Your task to perform on an android device: What does the iPhone 8 look like? Image 0: 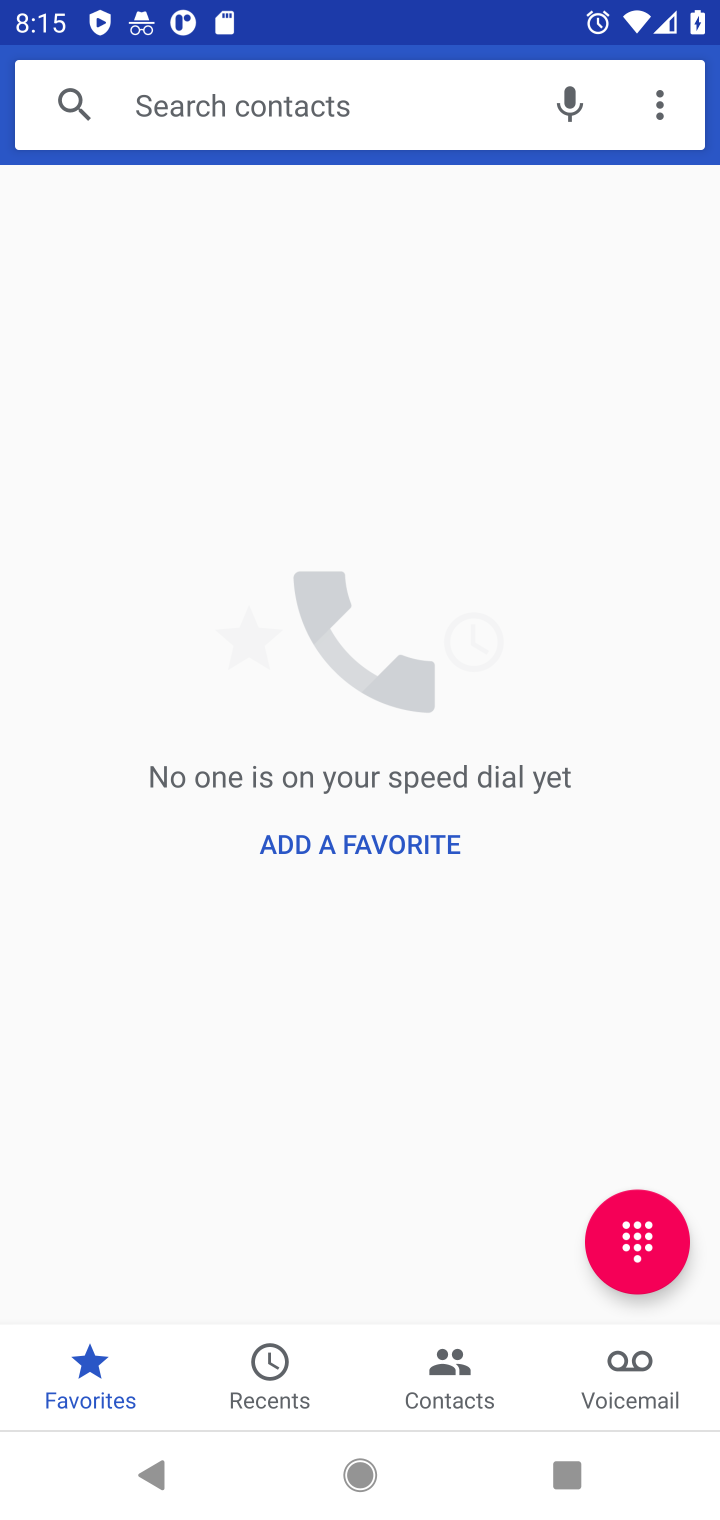
Step 0: press home button
Your task to perform on an android device: What does the iPhone 8 look like? Image 1: 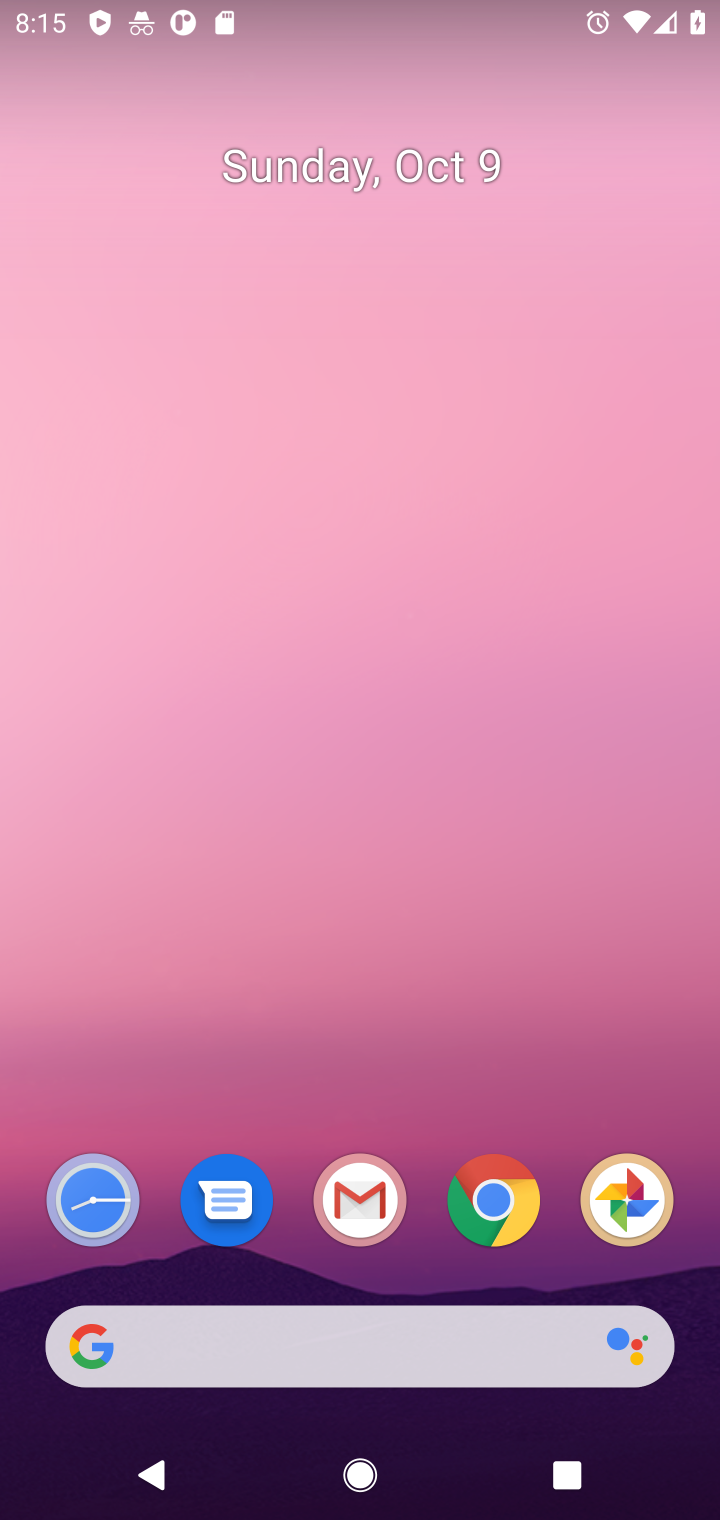
Step 1: click (499, 1199)
Your task to perform on an android device: What does the iPhone 8 look like? Image 2: 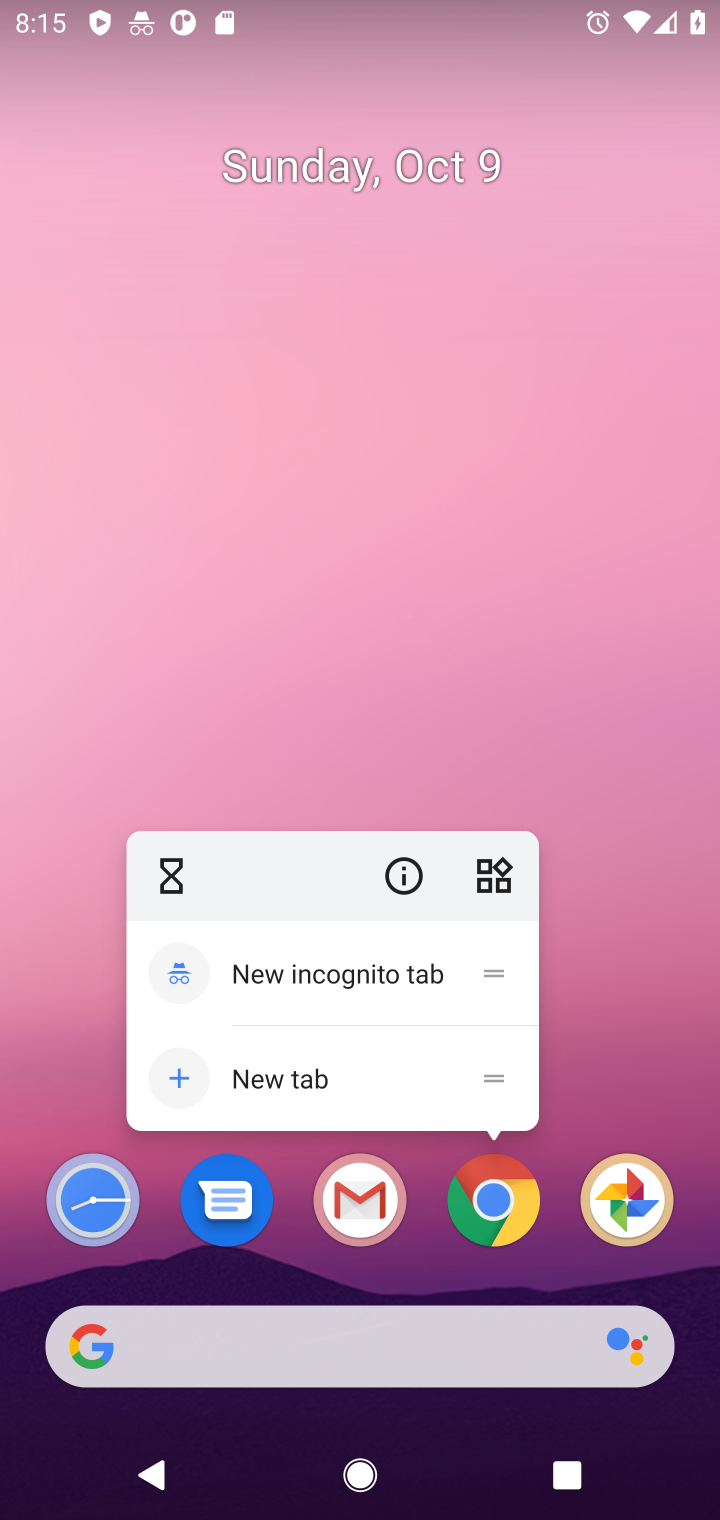
Step 2: click (488, 1213)
Your task to perform on an android device: What does the iPhone 8 look like? Image 3: 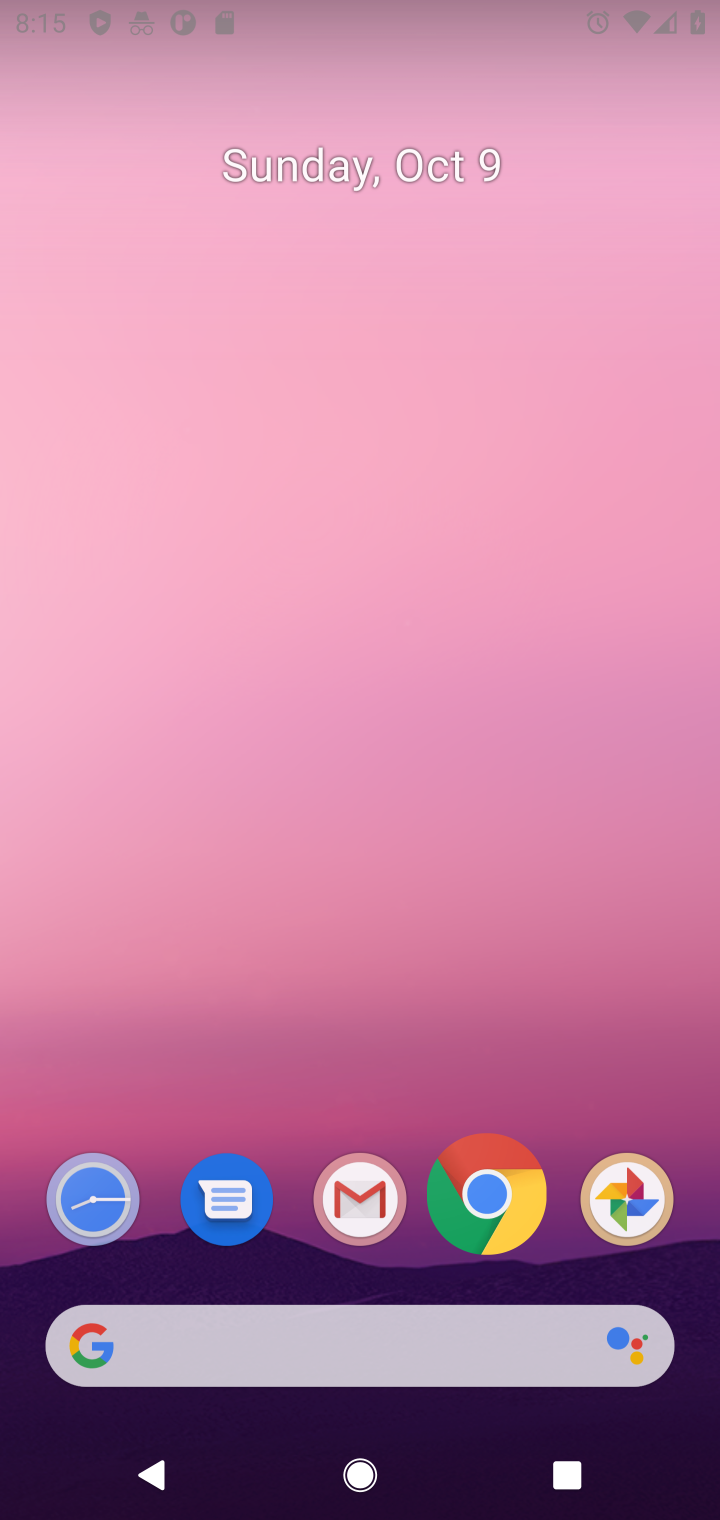
Step 3: click (501, 1208)
Your task to perform on an android device: What does the iPhone 8 look like? Image 4: 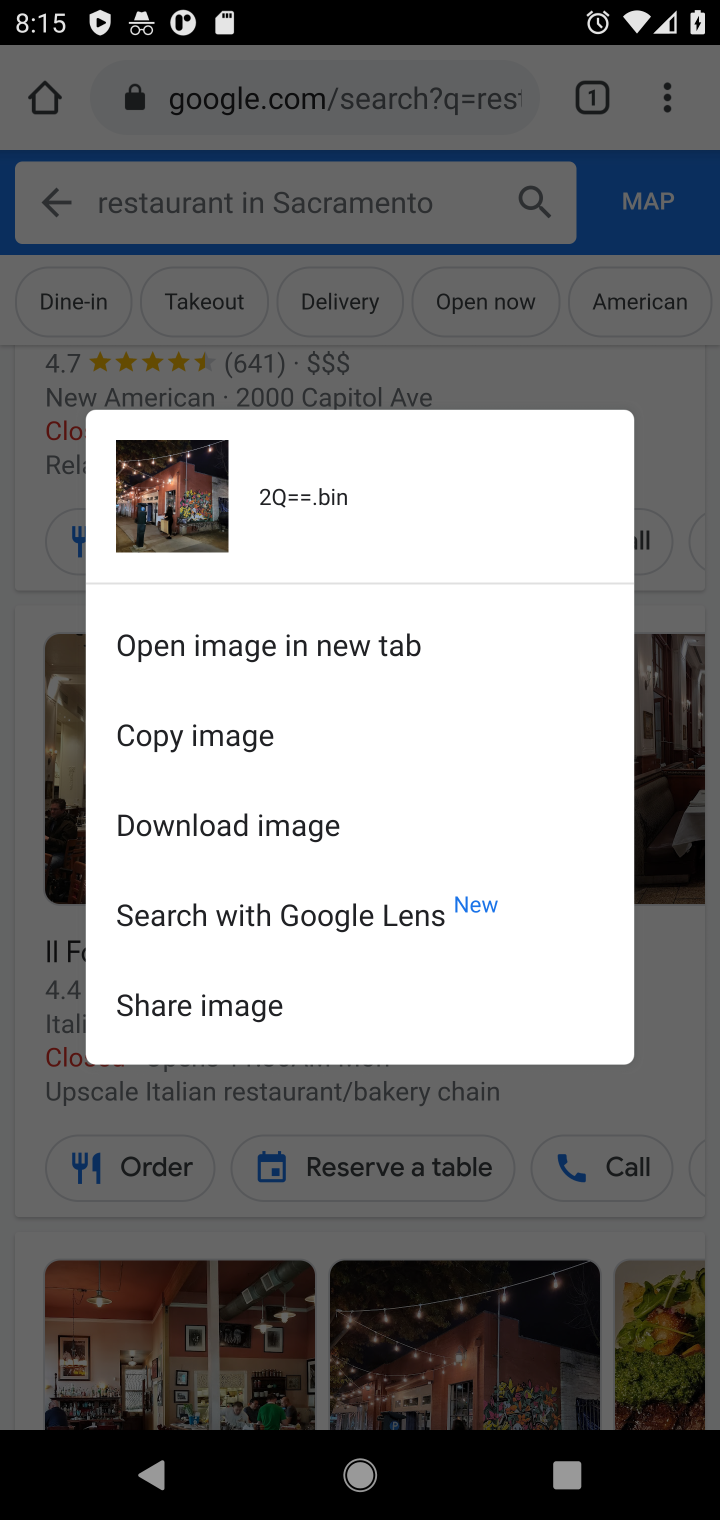
Step 4: click (434, 162)
Your task to perform on an android device: What does the iPhone 8 look like? Image 5: 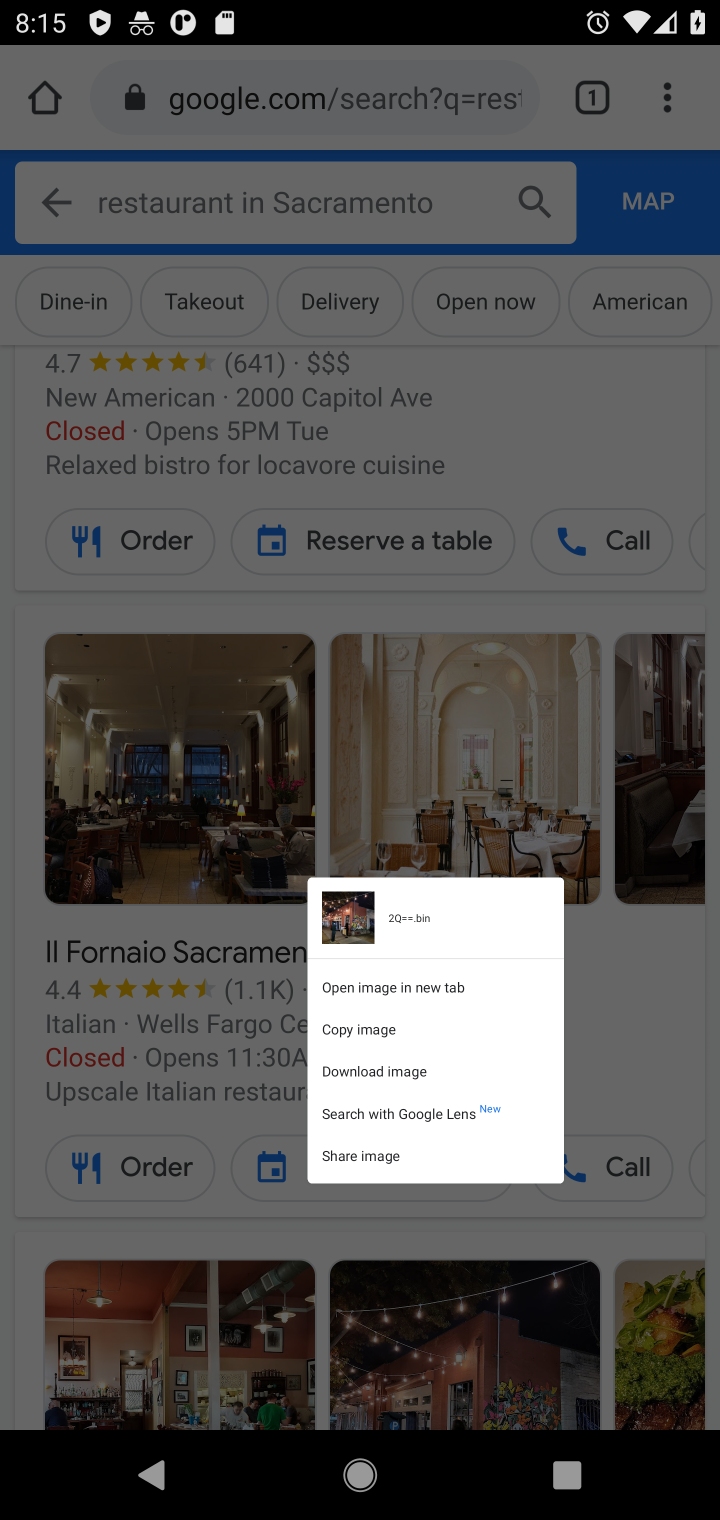
Step 5: click (387, 109)
Your task to perform on an android device: What does the iPhone 8 look like? Image 6: 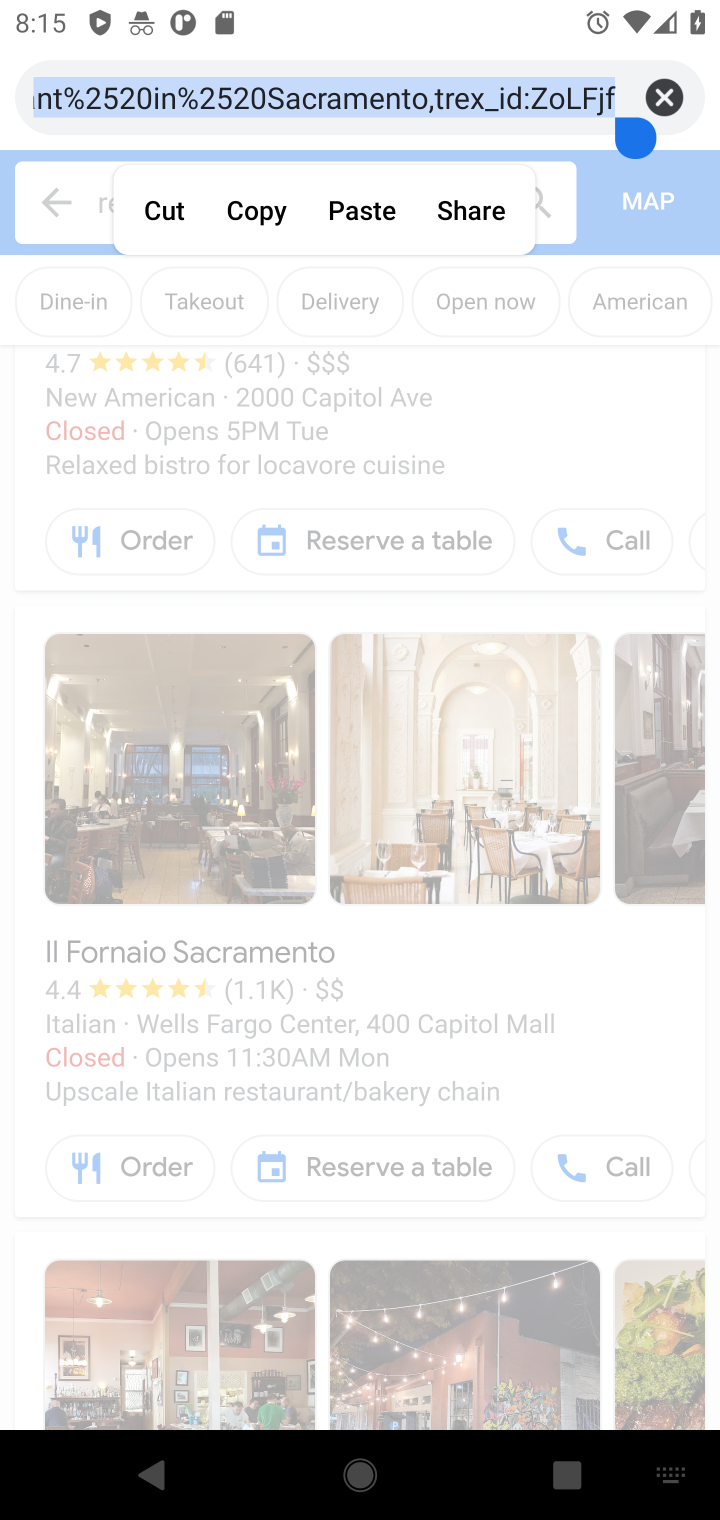
Step 6: type "What does the iPhone 8 look like"
Your task to perform on an android device: What does the iPhone 8 look like? Image 7: 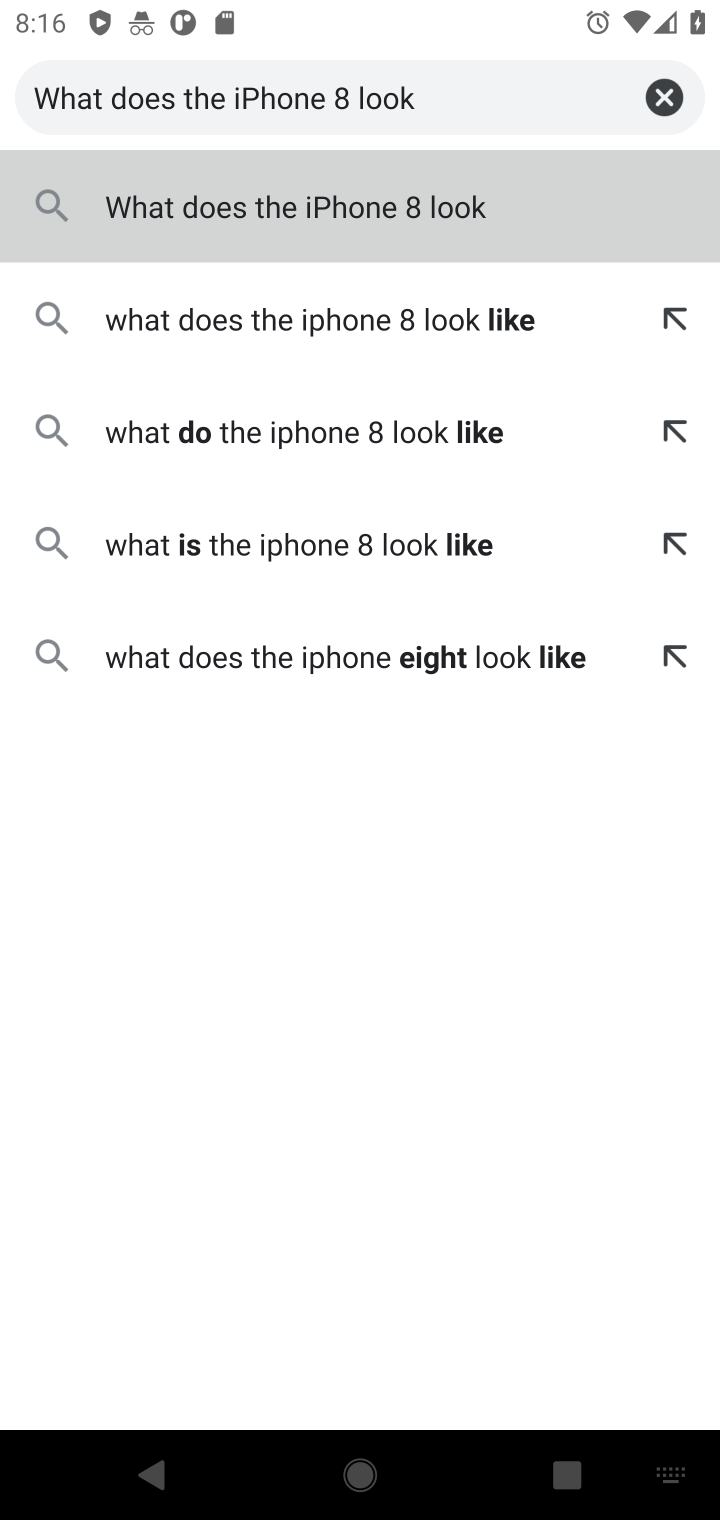
Step 7: click (373, 316)
Your task to perform on an android device: What does the iPhone 8 look like? Image 8: 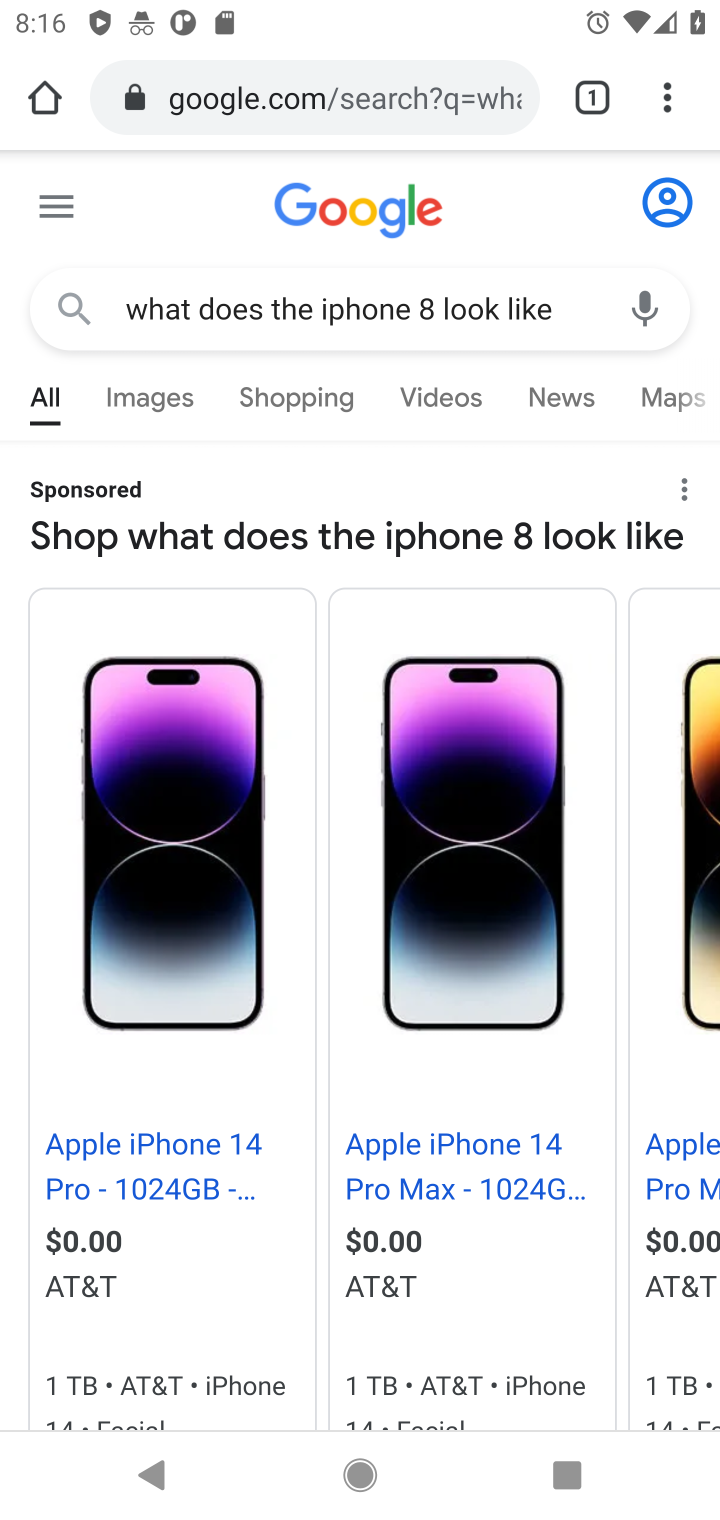
Step 8: task complete